Your task to perform on an android device: turn off data saver in the chrome app Image 0: 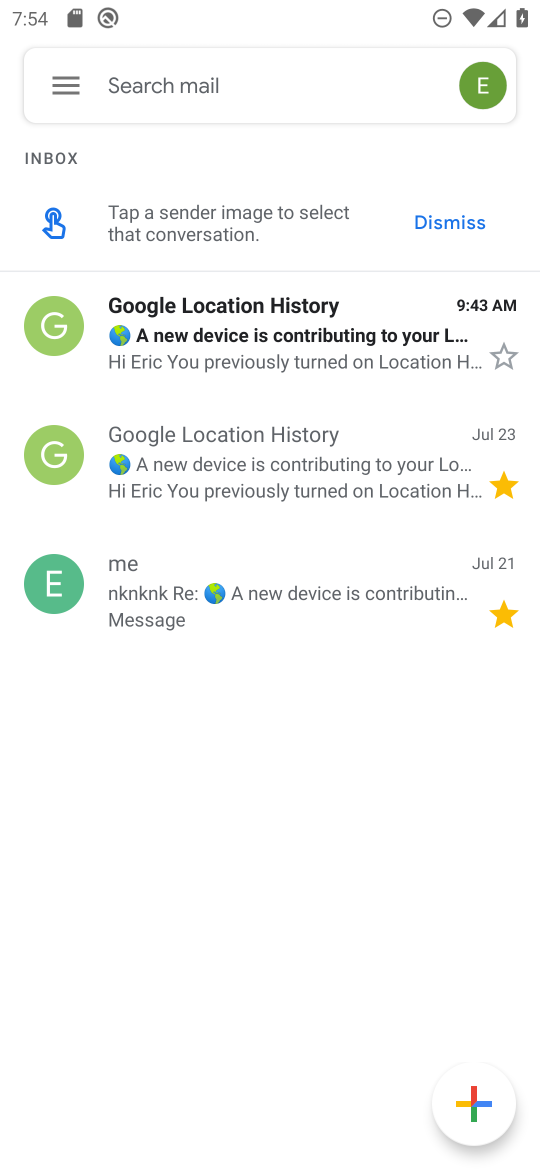
Step 0: press home button
Your task to perform on an android device: turn off data saver in the chrome app Image 1: 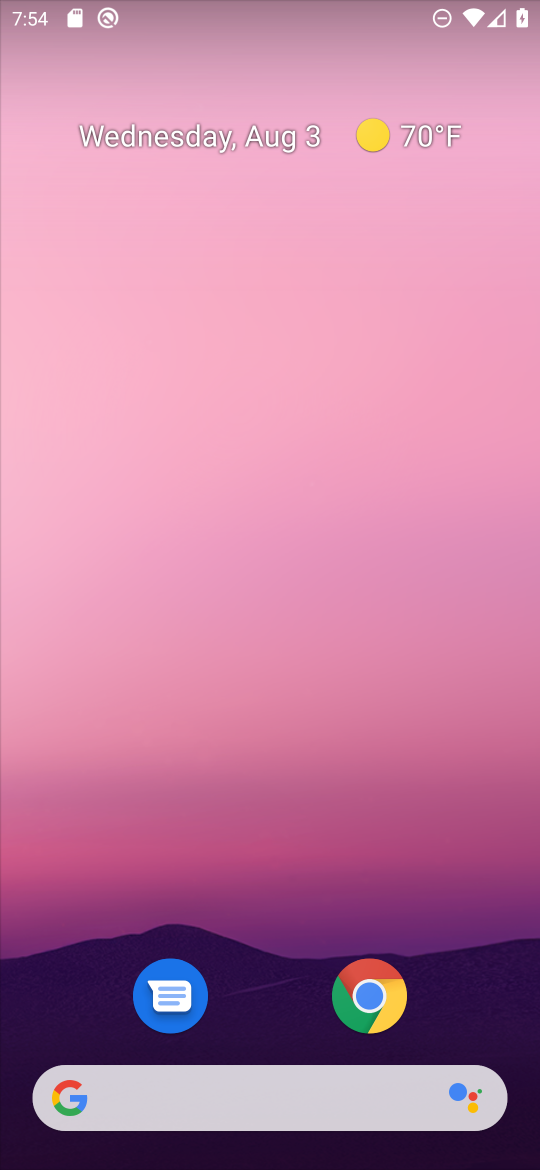
Step 1: click (385, 985)
Your task to perform on an android device: turn off data saver in the chrome app Image 2: 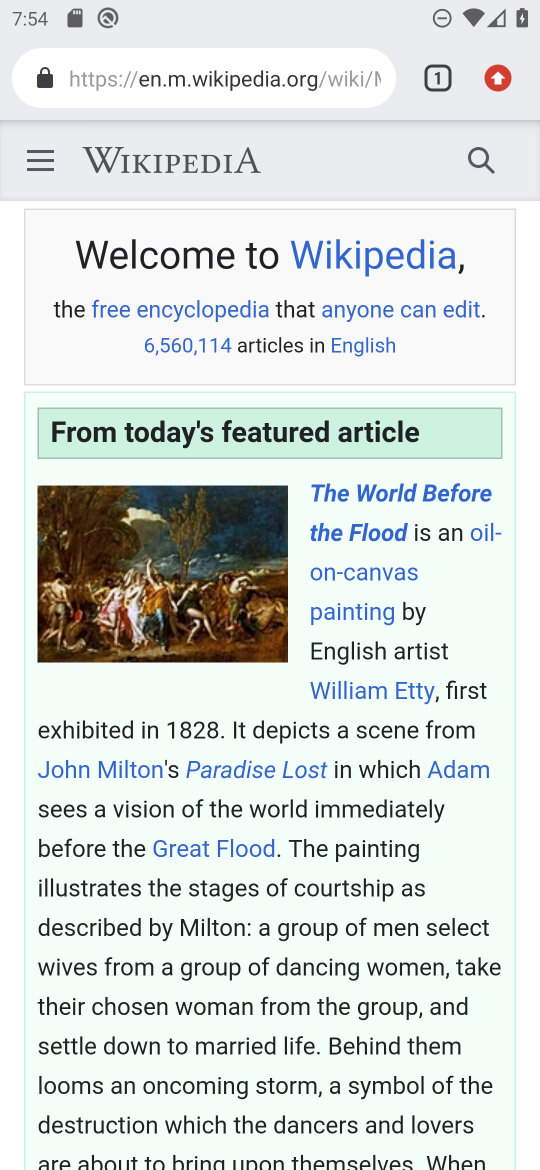
Step 2: press back button
Your task to perform on an android device: turn off data saver in the chrome app Image 3: 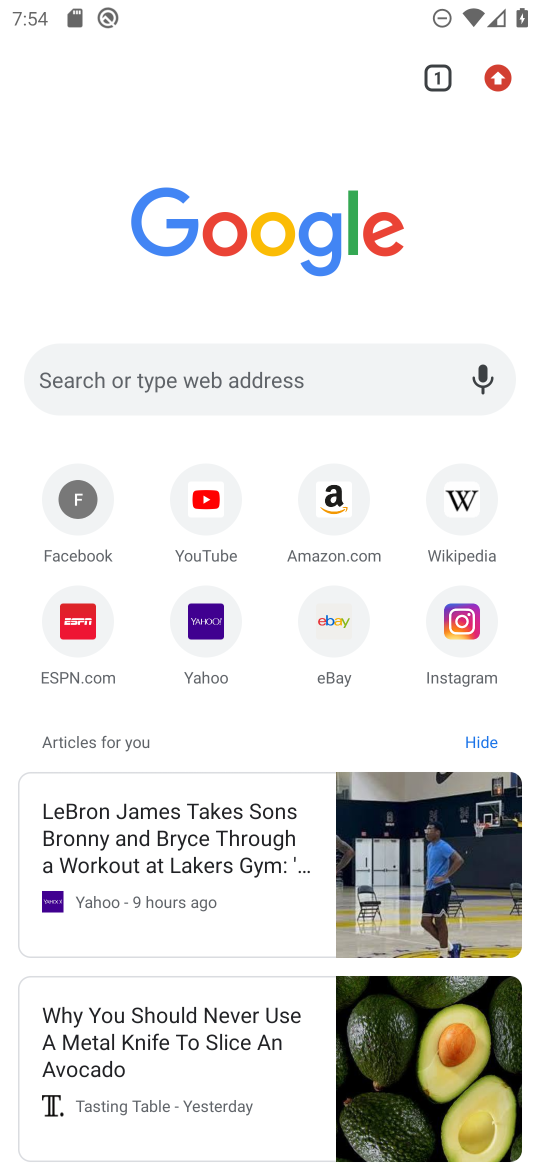
Step 3: click (501, 81)
Your task to perform on an android device: turn off data saver in the chrome app Image 4: 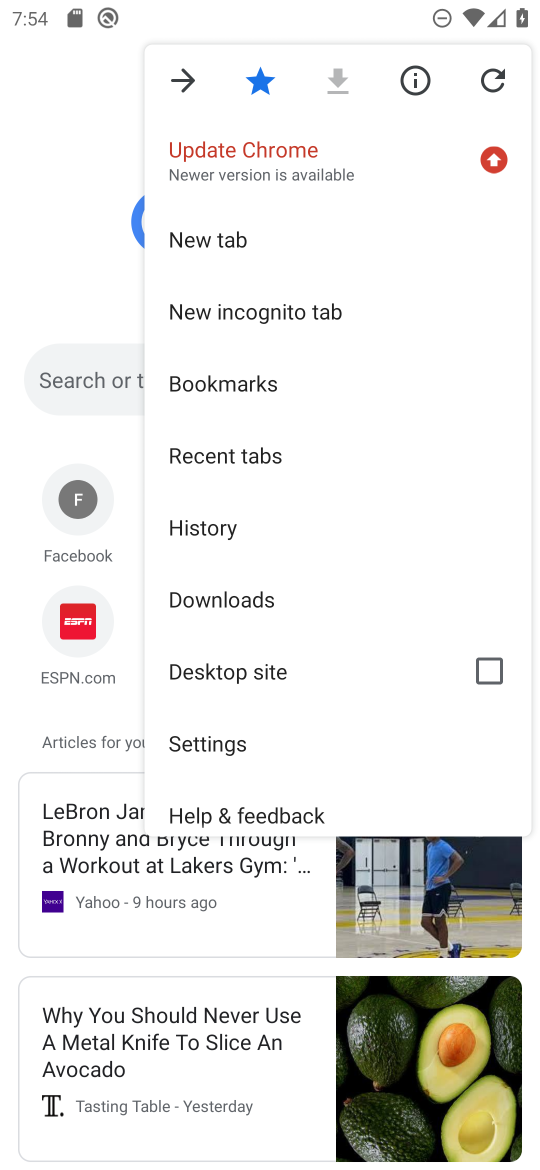
Step 4: click (240, 746)
Your task to perform on an android device: turn off data saver in the chrome app Image 5: 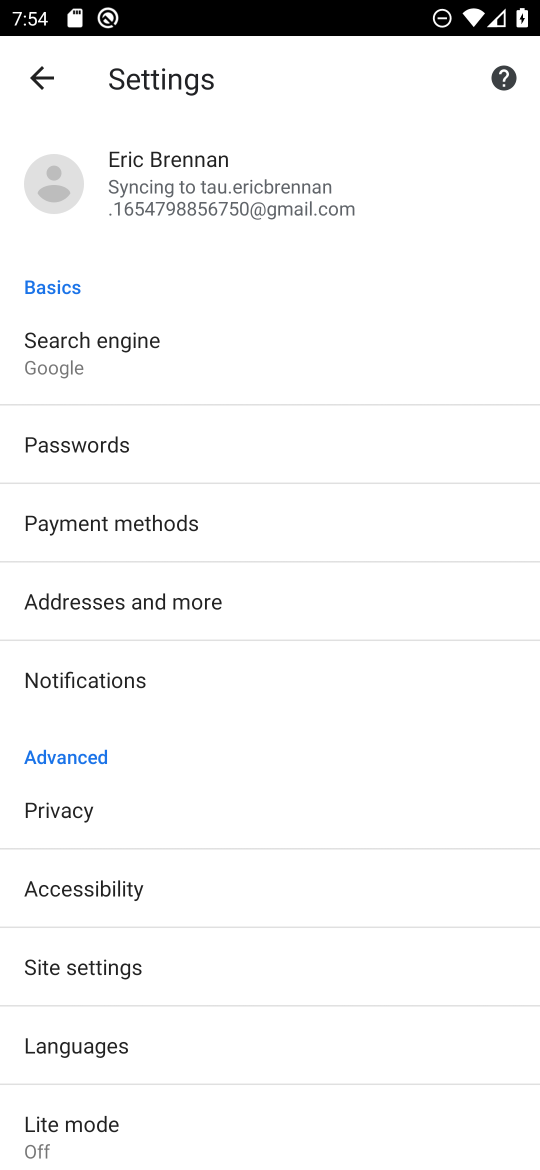
Step 5: click (125, 1135)
Your task to perform on an android device: turn off data saver in the chrome app Image 6: 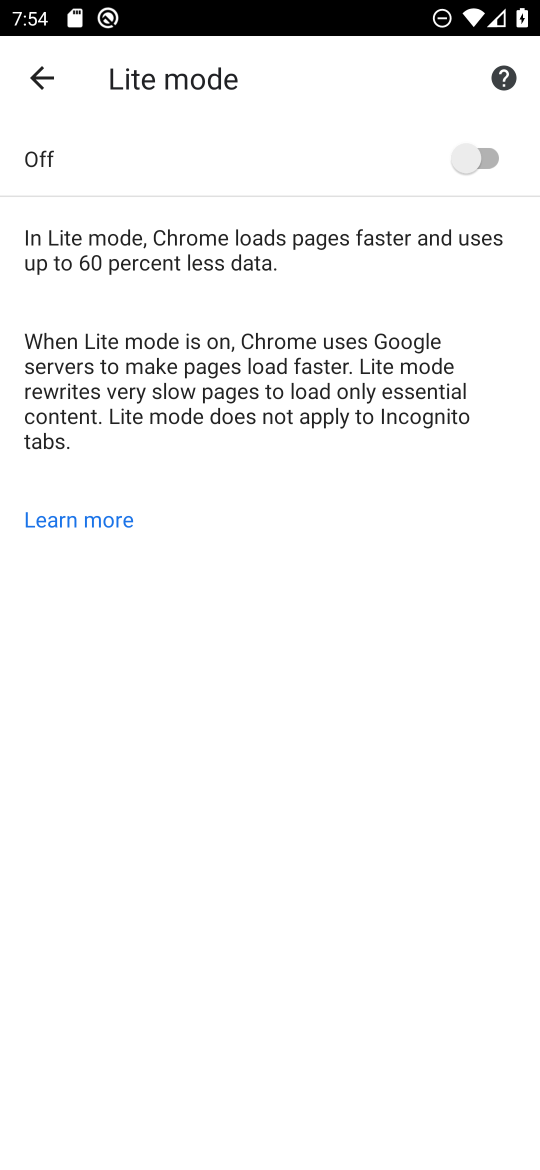
Step 6: task complete